Your task to perform on an android device: turn on the 12-hour format for clock Image 0: 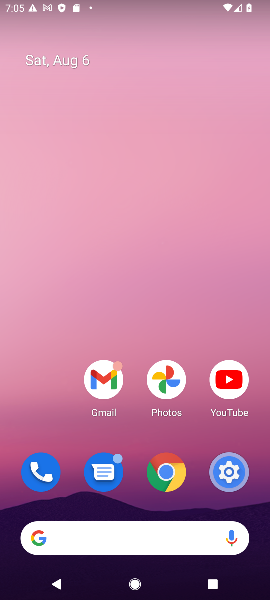
Step 0: drag from (190, 498) to (194, 63)
Your task to perform on an android device: turn on the 12-hour format for clock Image 1: 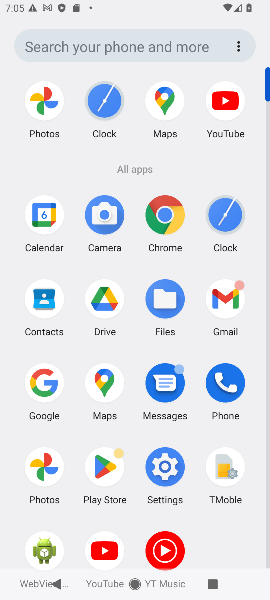
Step 1: click (224, 215)
Your task to perform on an android device: turn on the 12-hour format for clock Image 2: 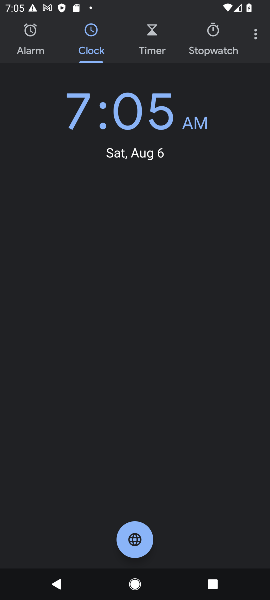
Step 2: click (252, 41)
Your task to perform on an android device: turn on the 12-hour format for clock Image 3: 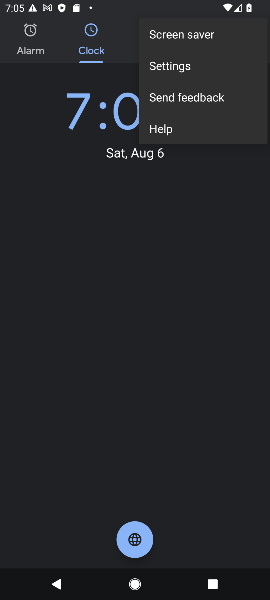
Step 3: click (170, 67)
Your task to perform on an android device: turn on the 12-hour format for clock Image 4: 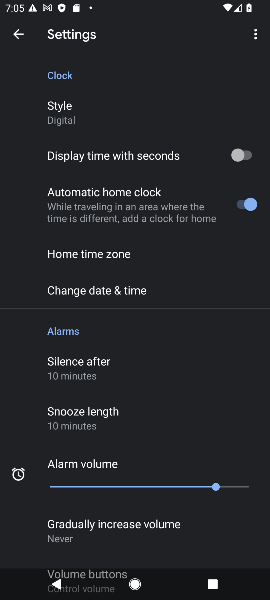
Step 4: click (128, 285)
Your task to perform on an android device: turn on the 12-hour format for clock Image 5: 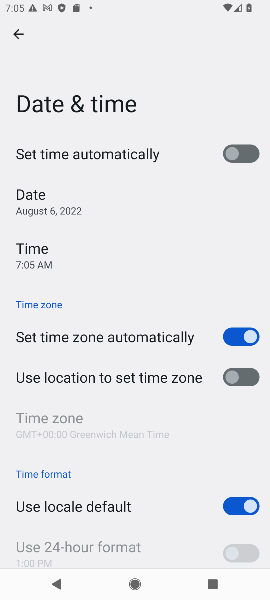
Step 5: task complete